Your task to perform on an android device: see sites visited before in the chrome app Image 0: 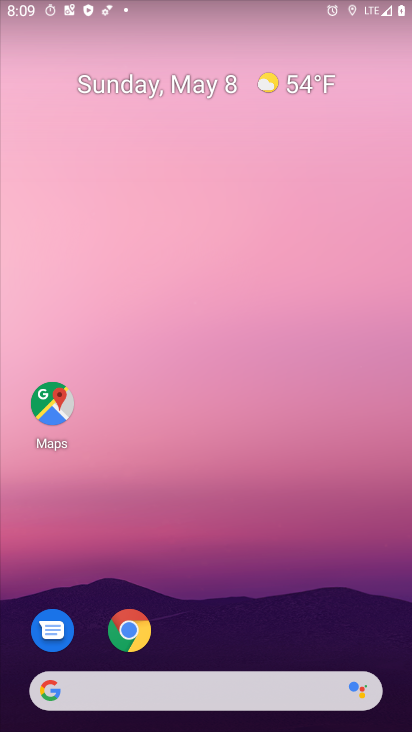
Step 0: click (140, 632)
Your task to perform on an android device: see sites visited before in the chrome app Image 1: 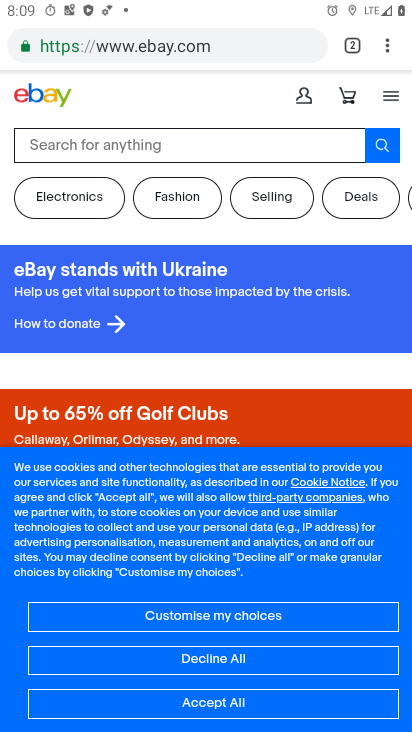
Step 1: click (384, 55)
Your task to perform on an android device: see sites visited before in the chrome app Image 2: 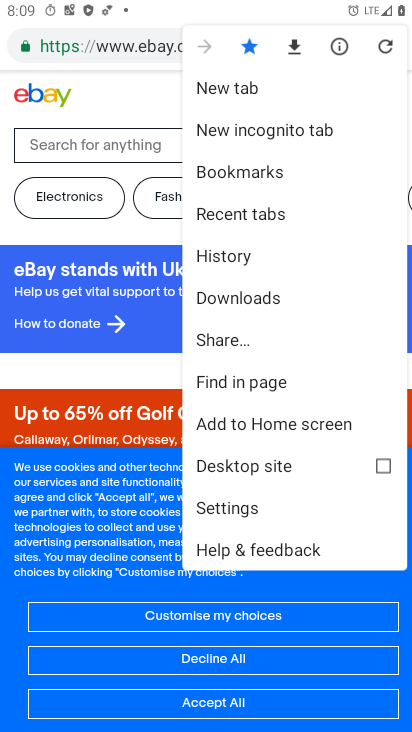
Step 2: click (240, 248)
Your task to perform on an android device: see sites visited before in the chrome app Image 3: 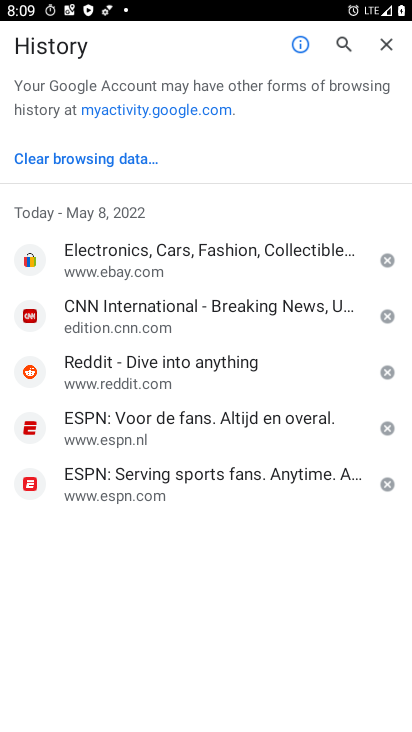
Step 3: task complete